Your task to perform on an android device: Go to Android settings Image 0: 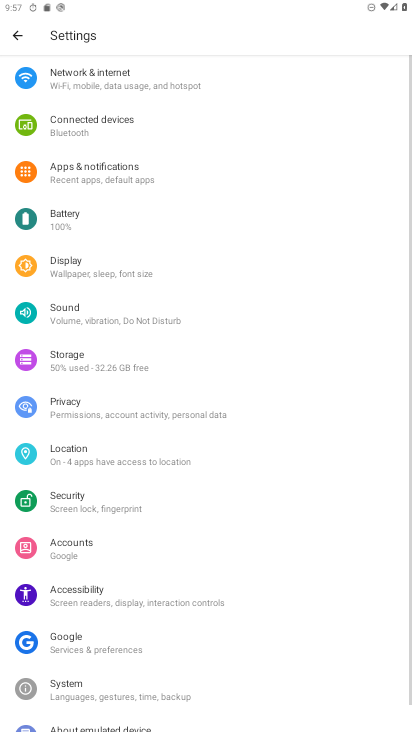
Step 0: press home button
Your task to perform on an android device: Go to Android settings Image 1: 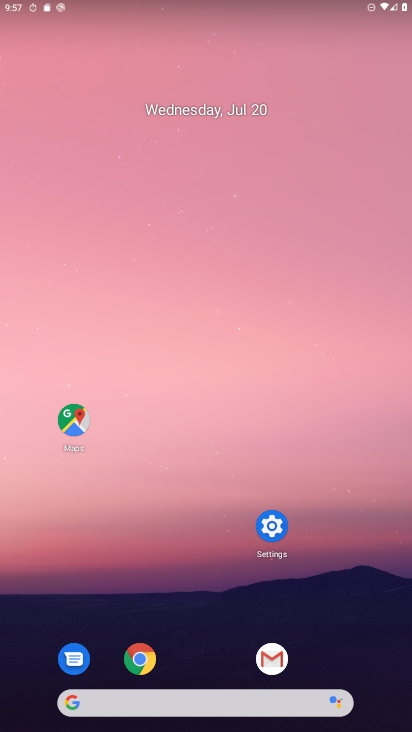
Step 1: click (269, 530)
Your task to perform on an android device: Go to Android settings Image 2: 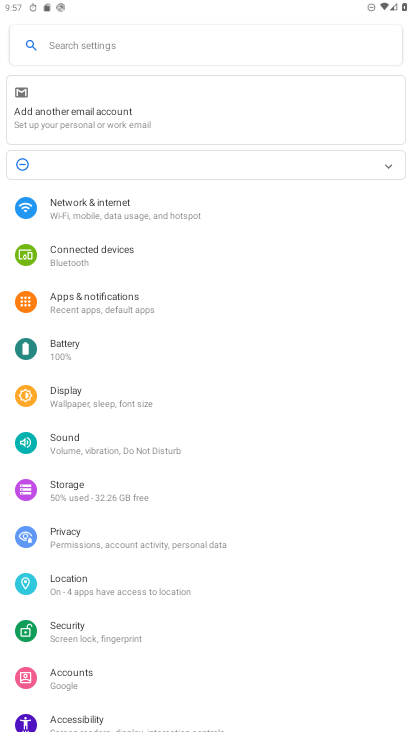
Step 2: click (105, 48)
Your task to perform on an android device: Go to Android settings Image 3: 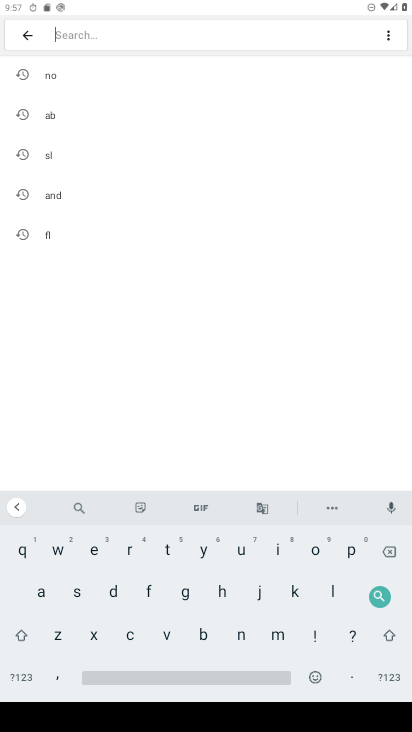
Step 3: click (39, 590)
Your task to perform on an android device: Go to Android settings Image 4: 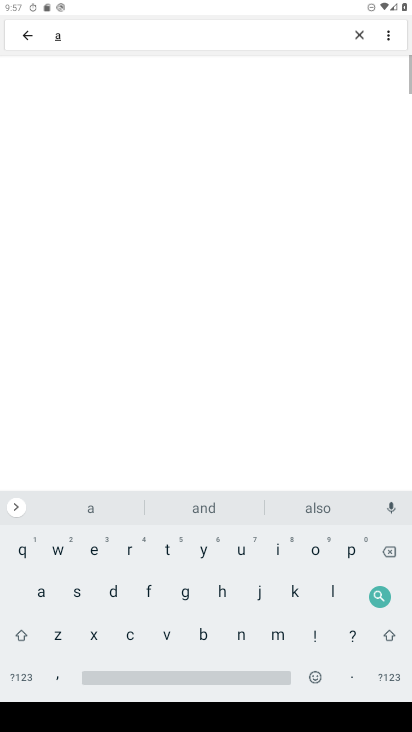
Step 4: click (246, 632)
Your task to perform on an android device: Go to Android settings Image 5: 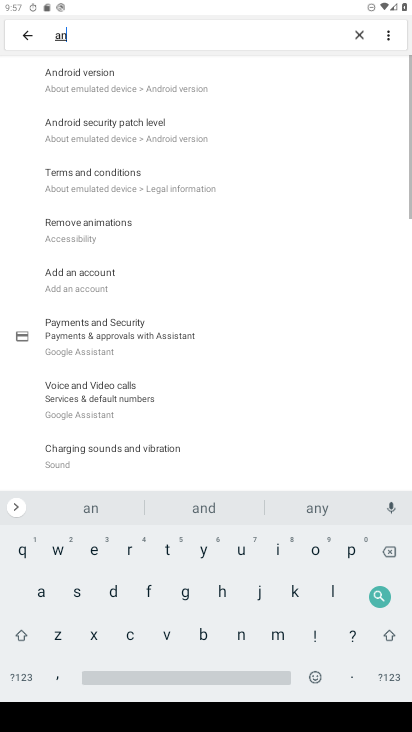
Step 5: click (108, 72)
Your task to perform on an android device: Go to Android settings Image 6: 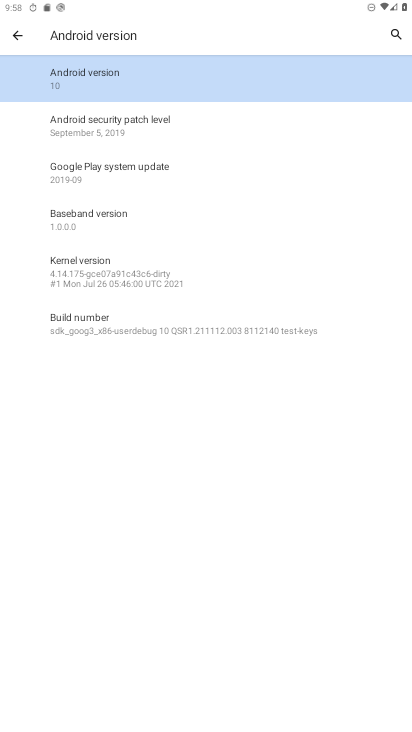
Step 6: click (121, 88)
Your task to perform on an android device: Go to Android settings Image 7: 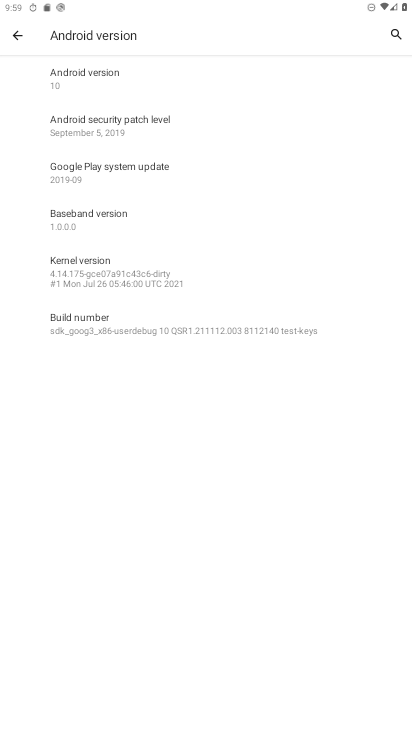
Step 7: task complete